Your task to perform on an android device: Search for the best rated kitchen reno kits on Lowes.com Image 0: 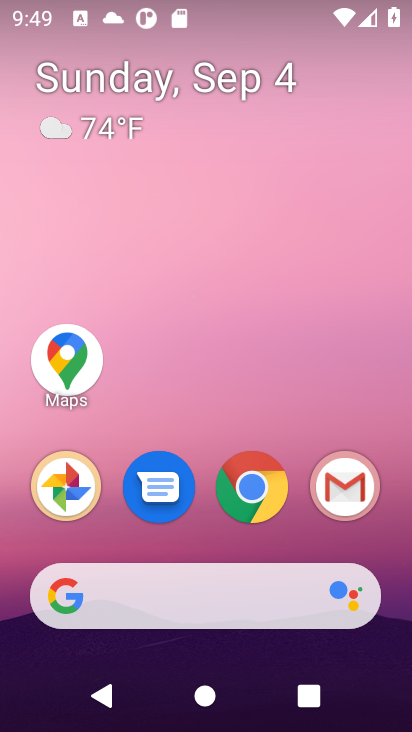
Step 0: click (175, 594)
Your task to perform on an android device: Search for the best rated kitchen reno kits on Lowes.com Image 1: 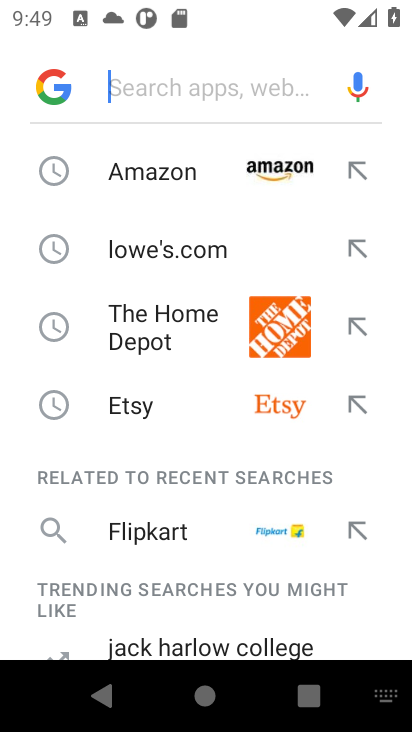
Step 1: click (198, 238)
Your task to perform on an android device: Search for the best rated kitchen reno kits on Lowes.com Image 2: 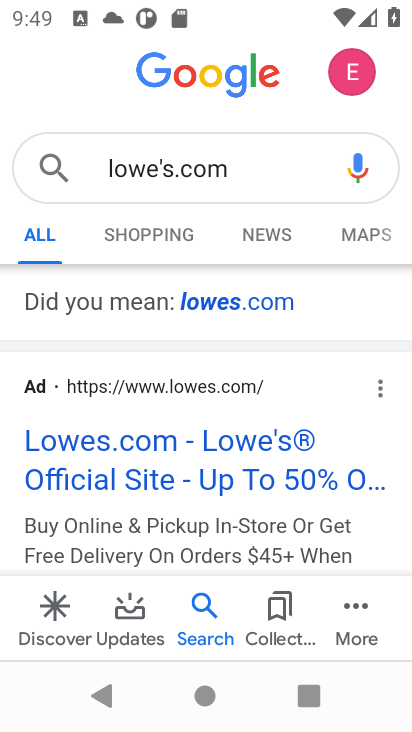
Step 2: click (118, 473)
Your task to perform on an android device: Search for the best rated kitchen reno kits on Lowes.com Image 3: 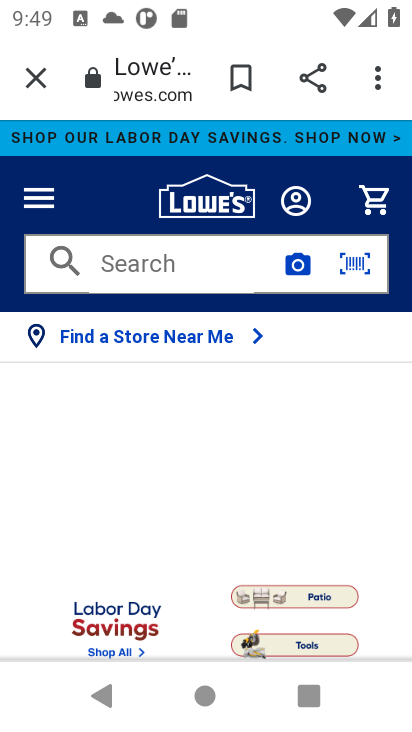
Step 3: click (160, 257)
Your task to perform on an android device: Search for the best rated kitchen reno kits on Lowes.com Image 4: 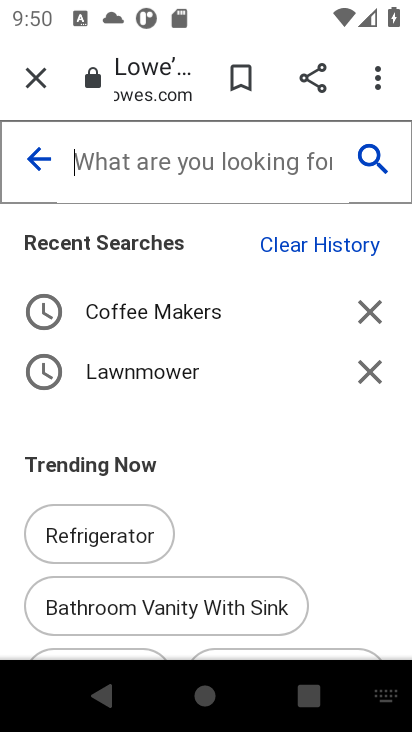
Step 4: type " kitchen reno kits"
Your task to perform on an android device: Search for the best rated kitchen reno kits on Lowes.com Image 5: 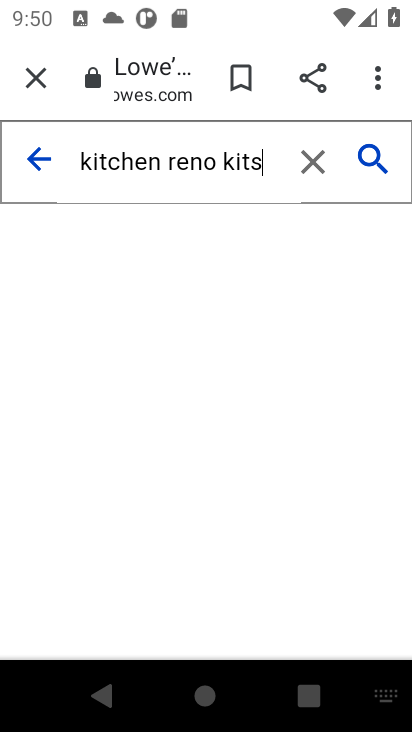
Step 5: click (368, 165)
Your task to perform on an android device: Search for the best rated kitchen reno kits on Lowes.com Image 6: 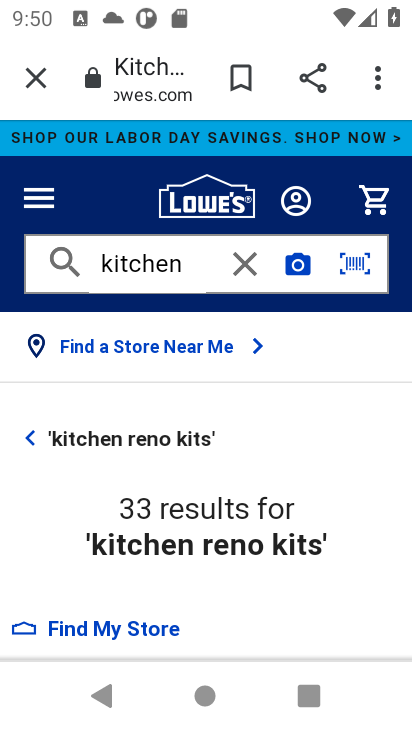
Step 6: task complete